Your task to perform on an android device: Open eBay Image 0: 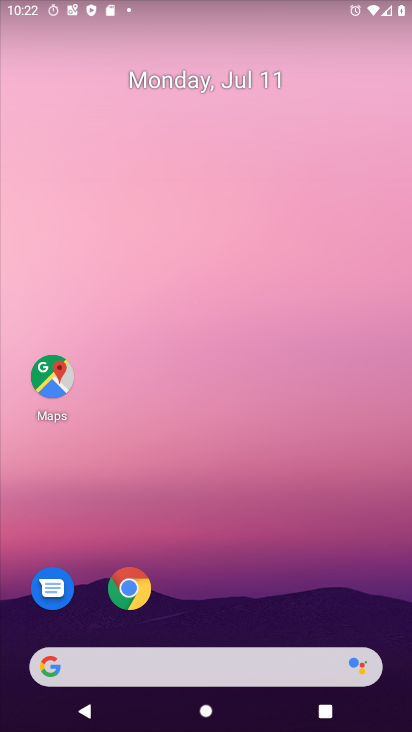
Step 0: click (138, 581)
Your task to perform on an android device: Open eBay Image 1: 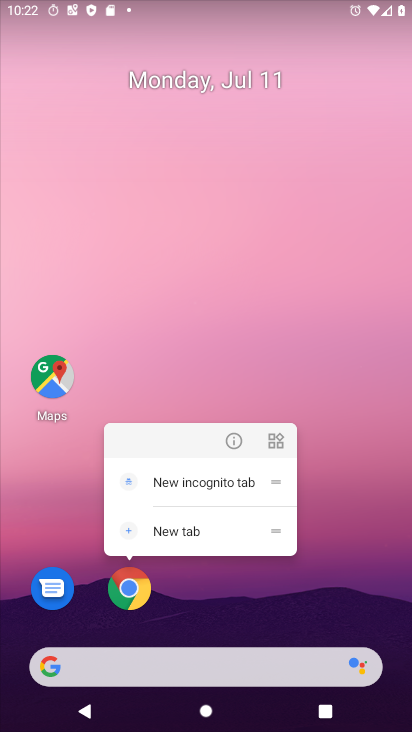
Step 1: click (128, 600)
Your task to perform on an android device: Open eBay Image 2: 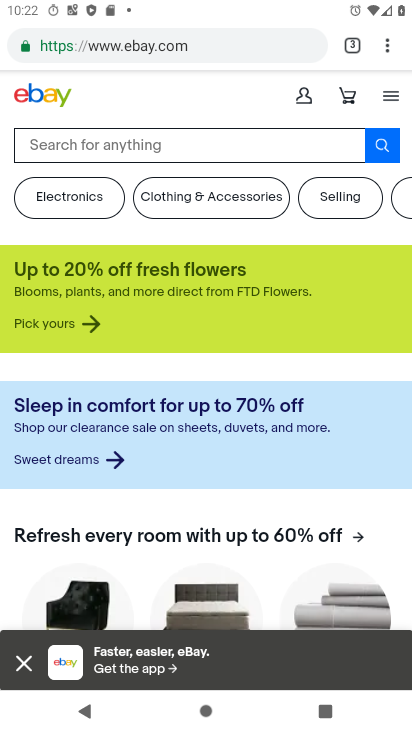
Step 2: task complete